Your task to perform on an android device: Go to privacy settings Image 0: 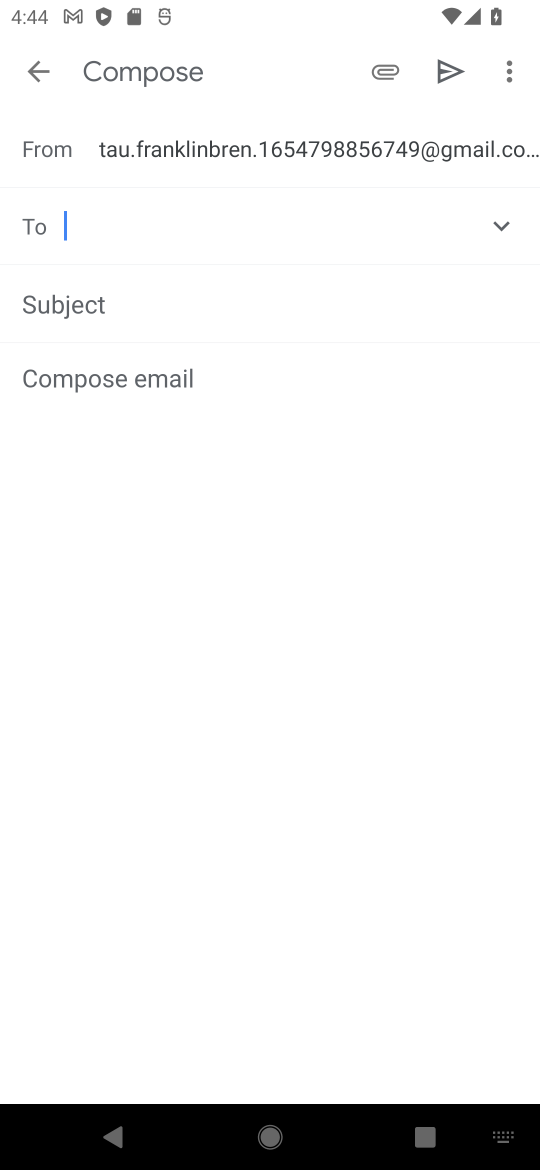
Step 0: press home button
Your task to perform on an android device: Go to privacy settings Image 1: 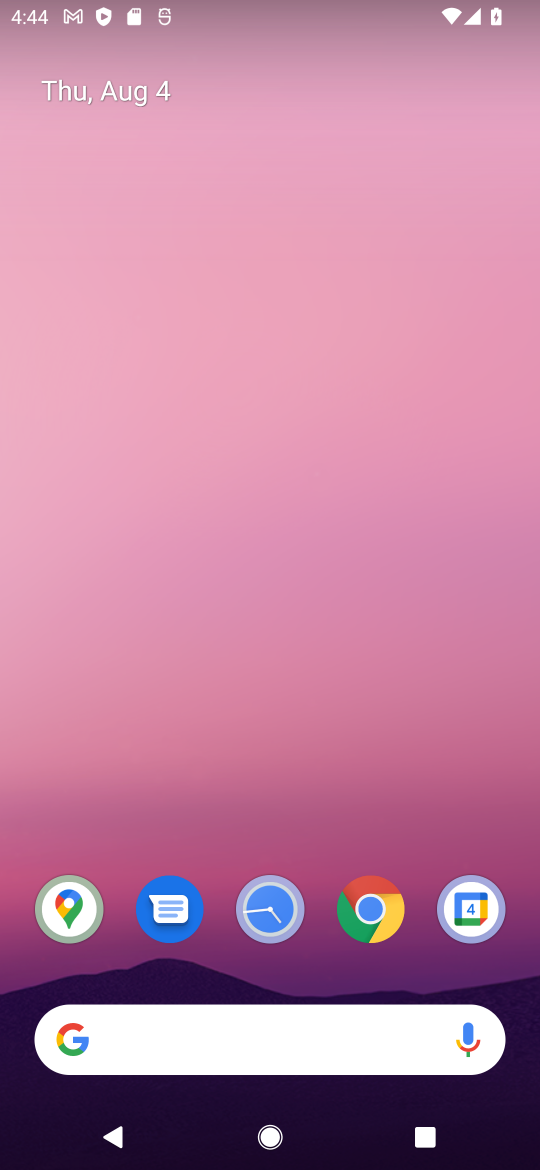
Step 1: drag from (274, 974) to (274, 107)
Your task to perform on an android device: Go to privacy settings Image 2: 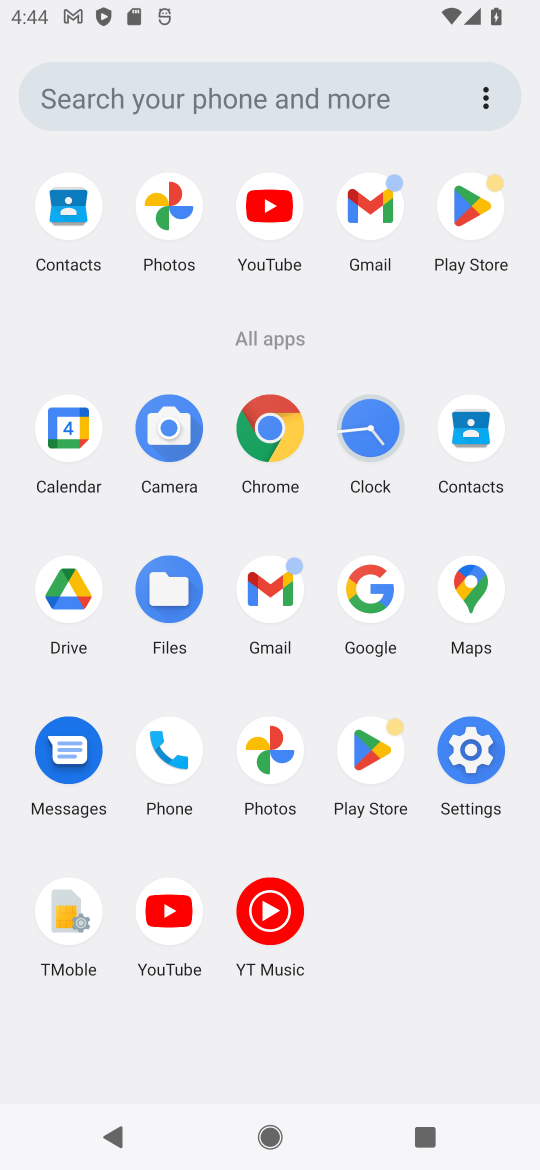
Step 2: click (474, 782)
Your task to perform on an android device: Go to privacy settings Image 3: 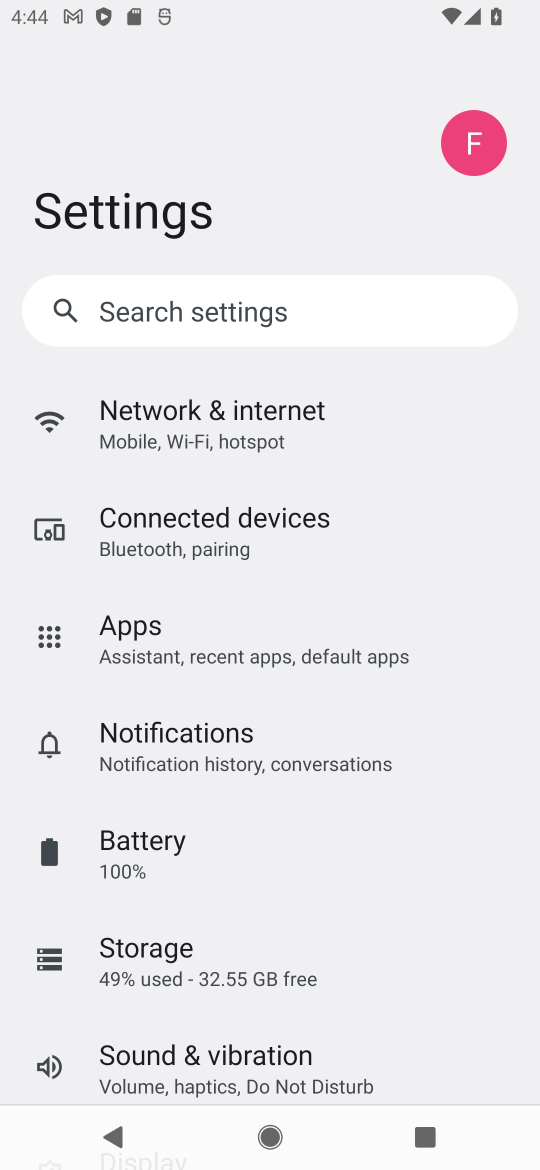
Step 3: drag from (168, 869) to (166, 524)
Your task to perform on an android device: Go to privacy settings Image 4: 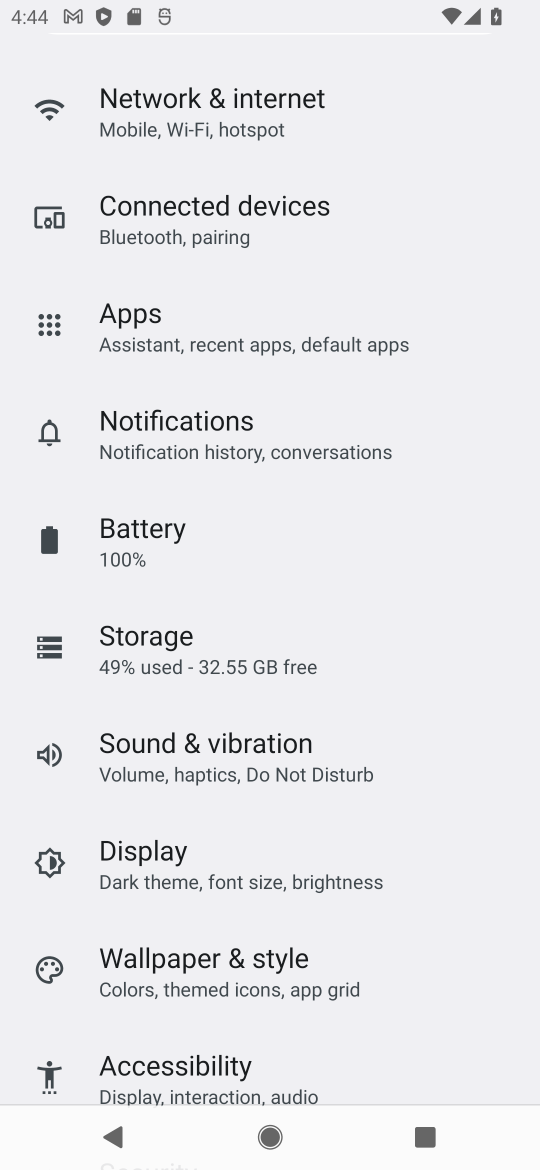
Step 4: drag from (181, 900) to (172, 363)
Your task to perform on an android device: Go to privacy settings Image 5: 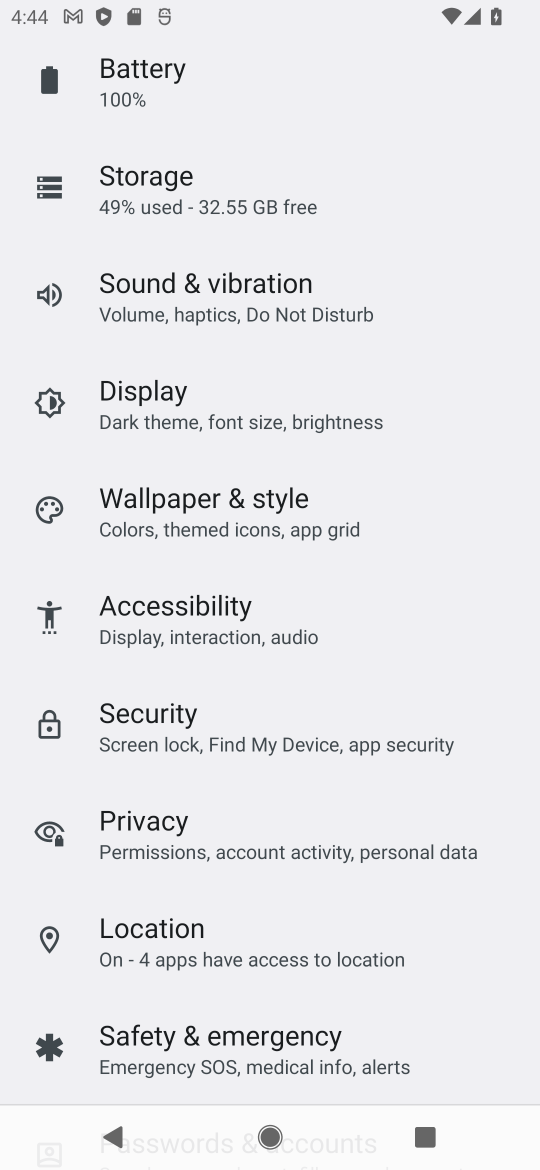
Step 5: click (131, 845)
Your task to perform on an android device: Go to privacy settings Image 6: 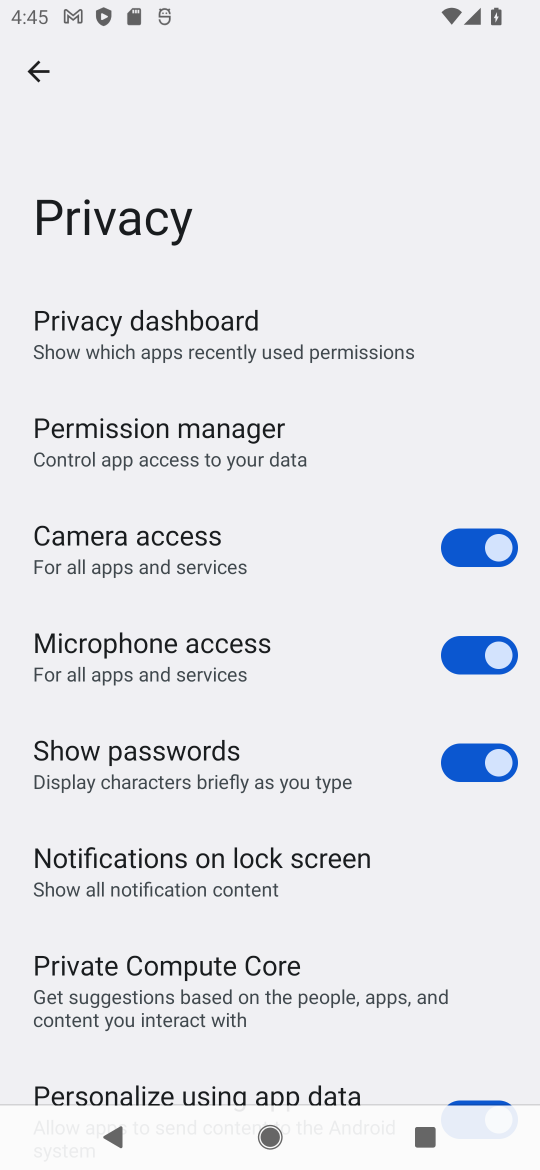
Step 6: task complete